Your task to perform on an android device: check storage Image 0: 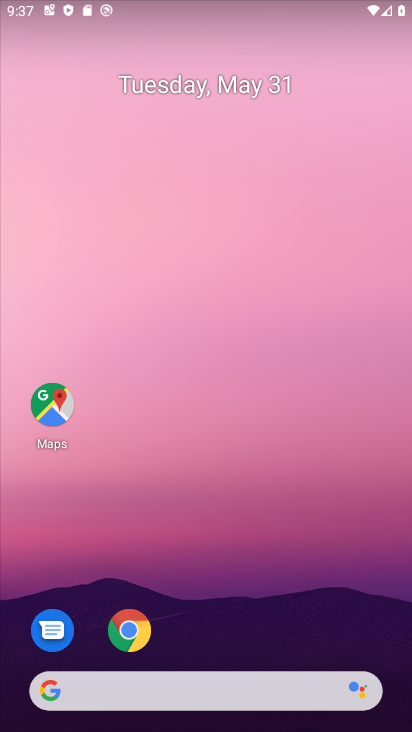
Step 0: drag from (255, 683) to (261, 204)
Your task to perform on an android device: check storage Image 1: 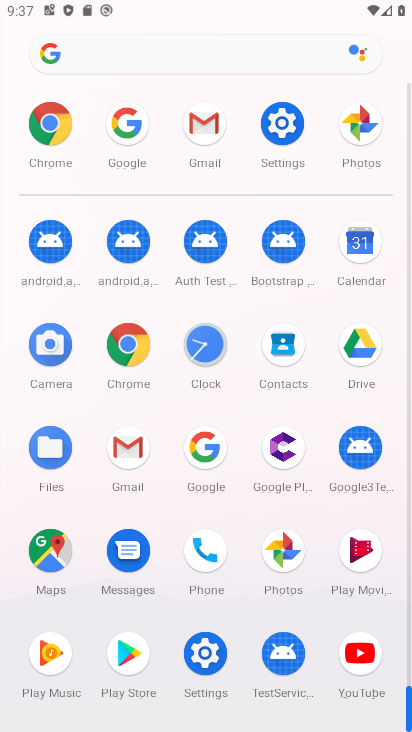
Step 1: click (296, 146)
Your task to perform on an android device: check storage Image 2: 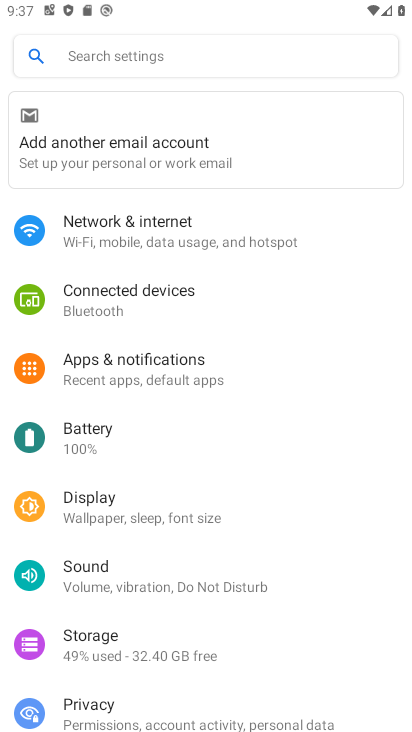
Step 2: drag from (183, 591) to (194, 308)
Your task to perform on an android device: check storage Image 3: 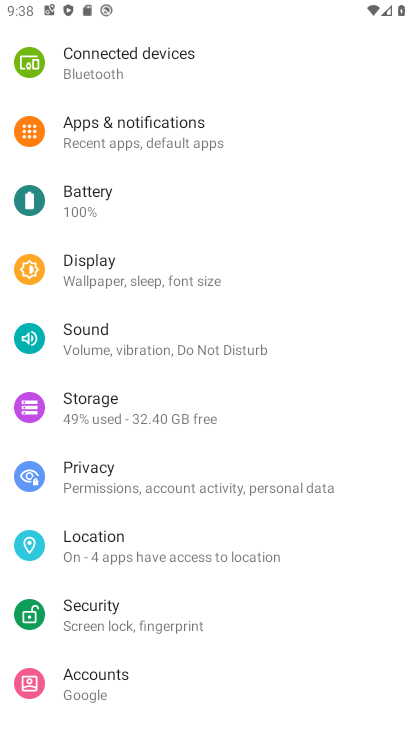
Step 3: click (176, 410)
Your task to perform on an android device: check storage Image 4: 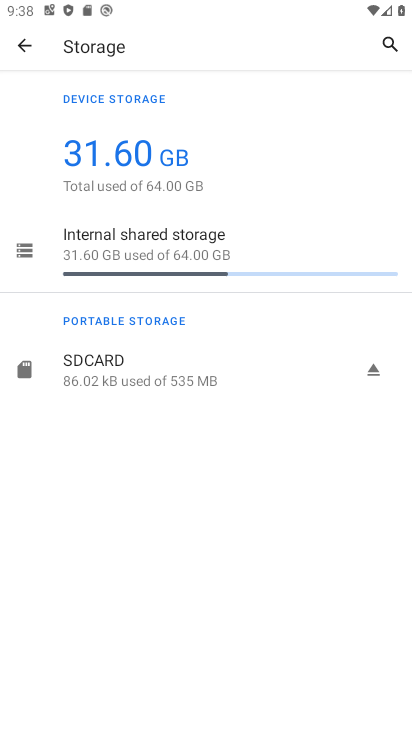
Step 4: click (219, 253)
Your task to perform on an android device: check storage Image 5: 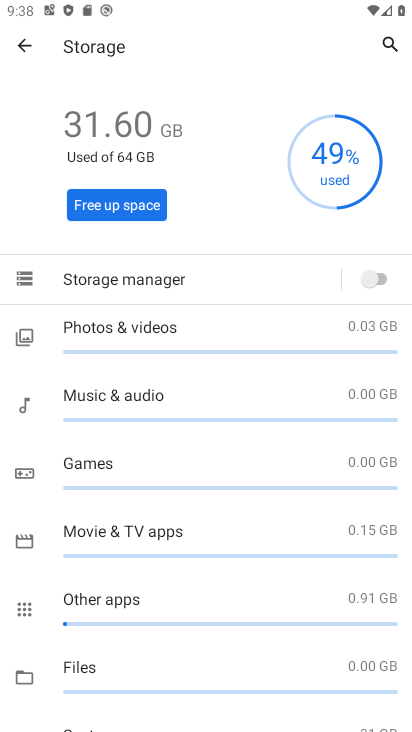
Step 5: task complete